Your task to perform on an android device: Go to accessibility settings Image 0: 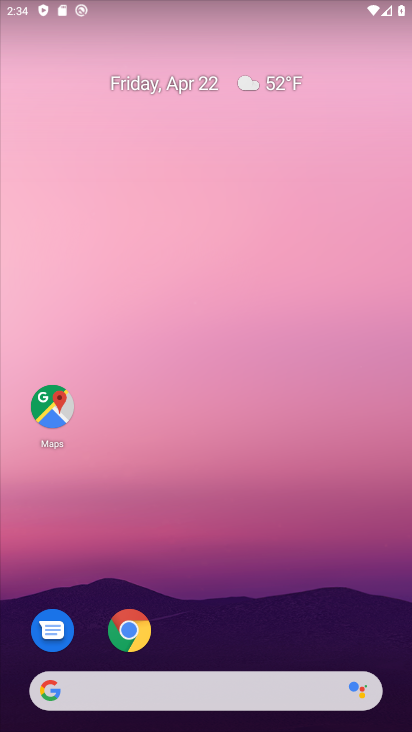
Step 0: drag from (390, 669) to (256, 291)
Your task to perform on an android device: Go to accessibility settings Image 1: 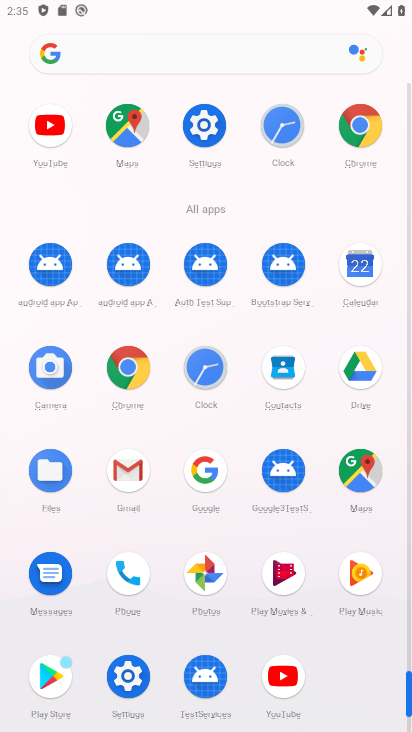
Step 1: click (122, 677)
Your task to perform on an android device: Go to accessibility settings Image 2: 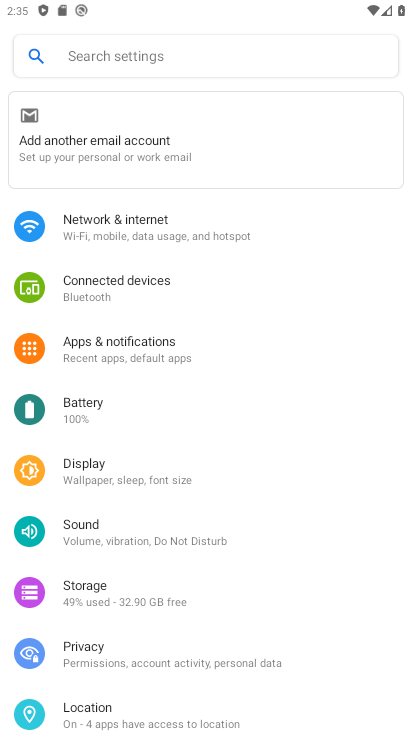
Step 2: drag from (346, 625) to (278, 268)
Your task to perform on an android device: Go to accessibility settings Image 3: 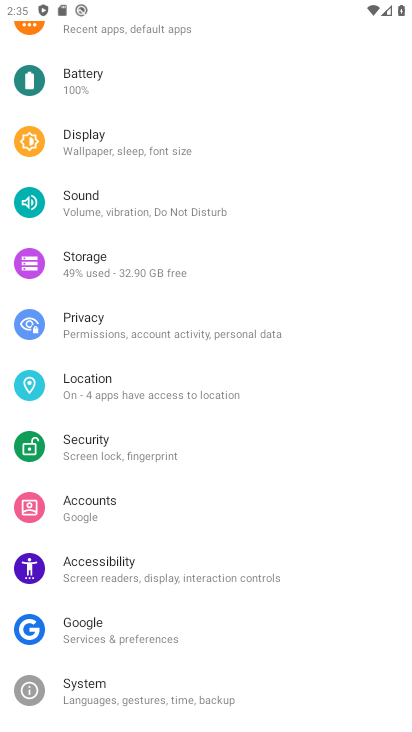
Step 3: click (90, 561)
Your task to perform on an android device: Go to accessibility settings Image 4: 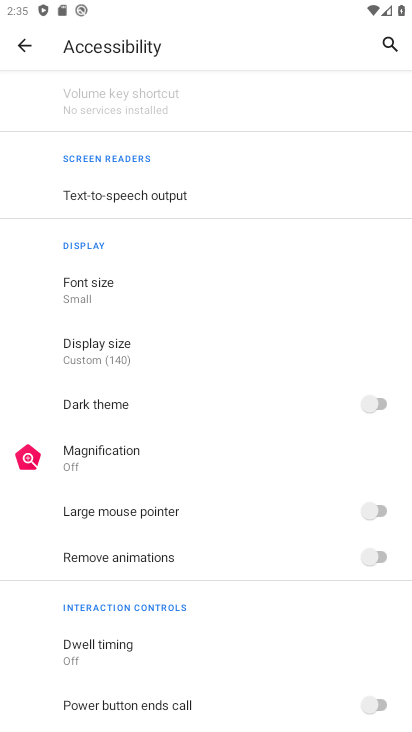
Step 4: task complete